Your task to perform on an android device: Search for top rated pizza restaurants on Maps Image 0: 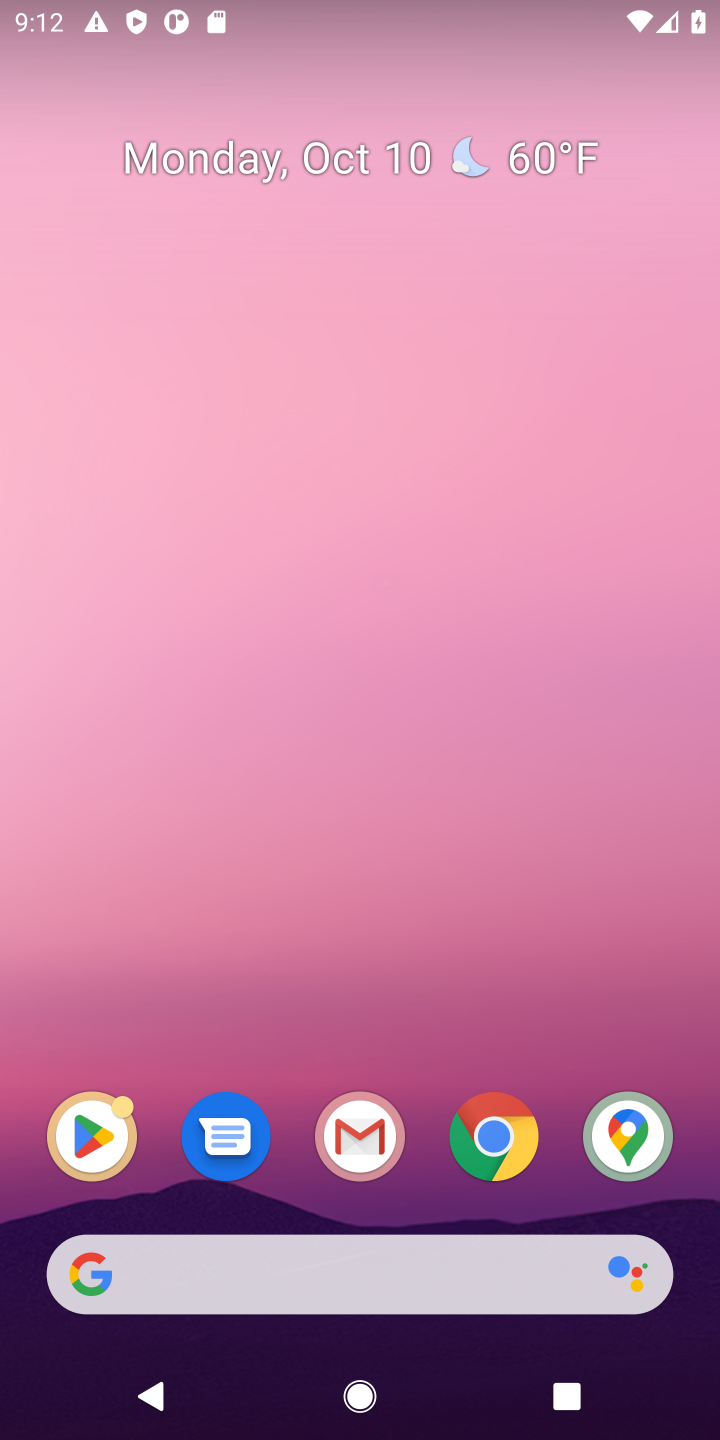
Step 0: click (626, 1143)
Your task to perform on an android device: Search for top rated pizza restaurants on Maps Image 1: 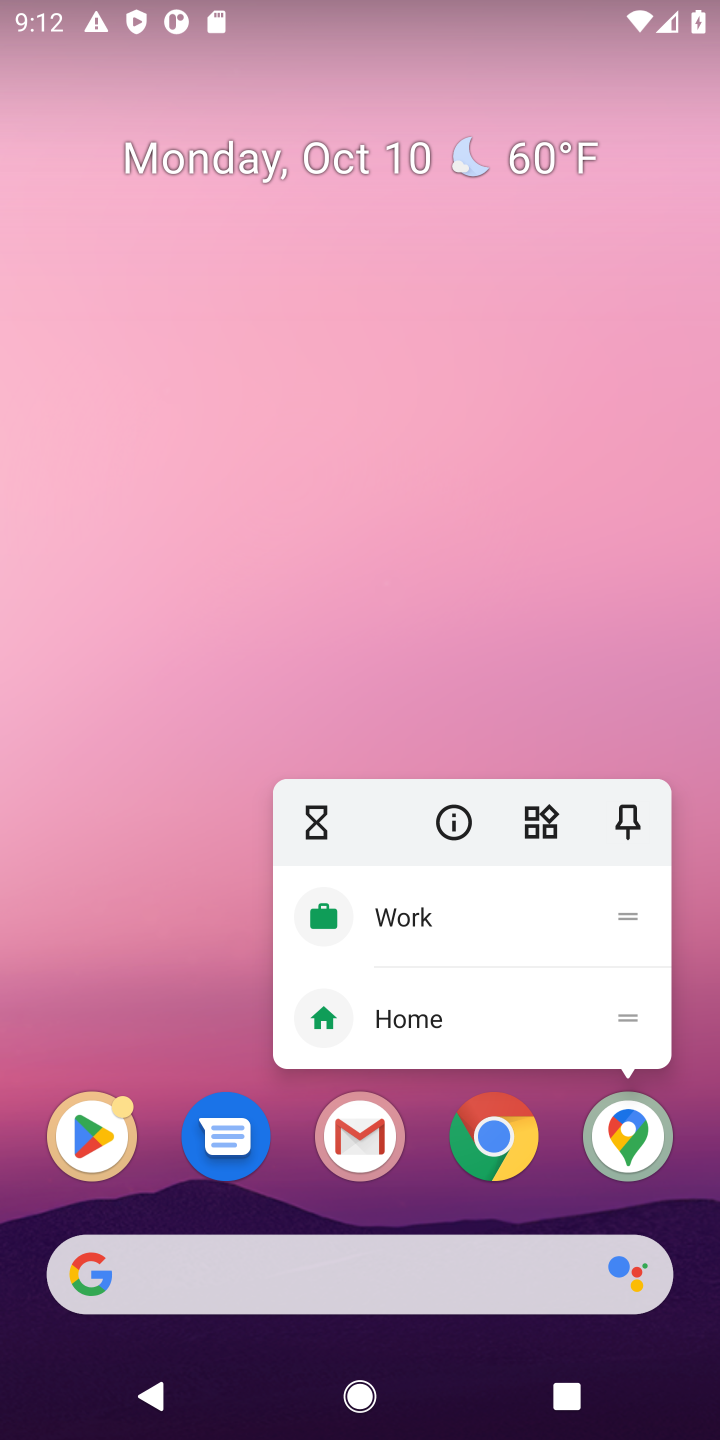
Step 1: click (626, 1135)
Your task to perform on an android device: Search for top rated pizza restaurants on Maps Image 2: 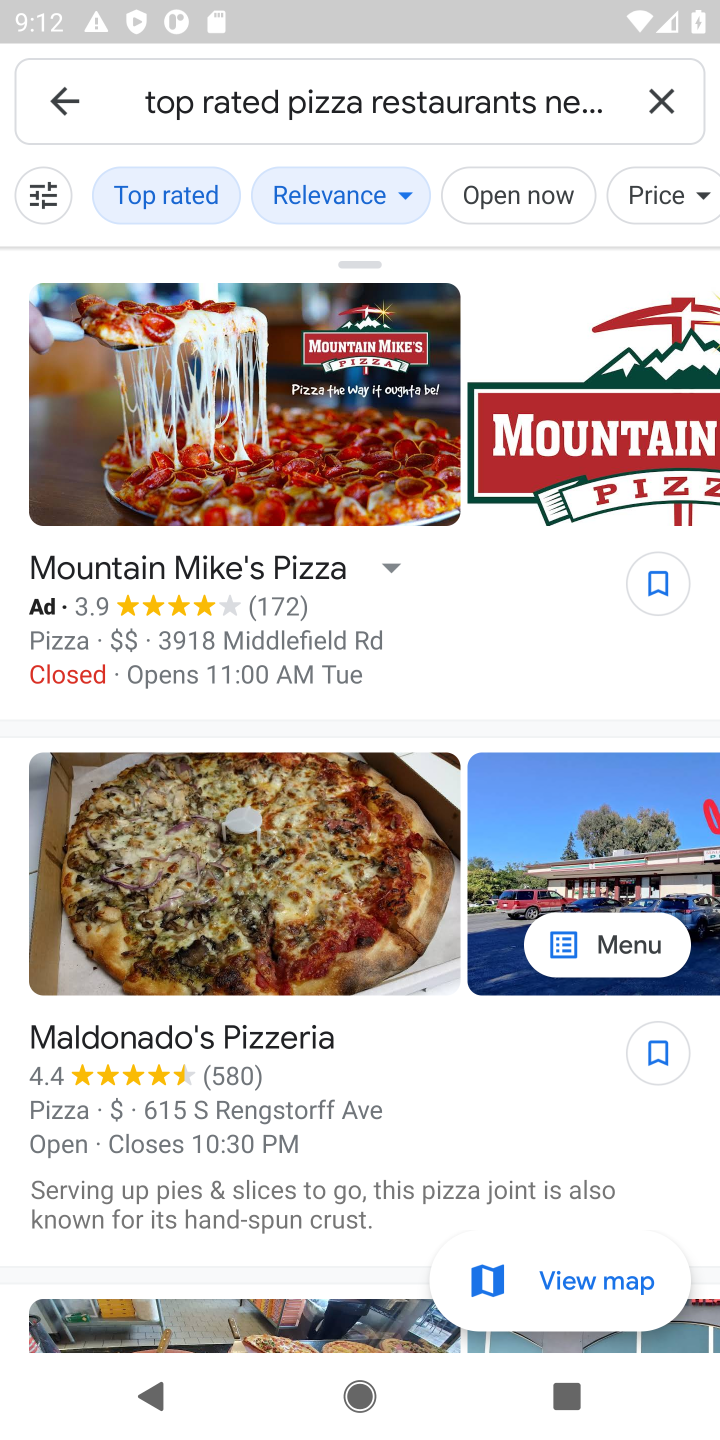
Step 2: task complete